Your task to perform on an android device: set an alarm Image 0: 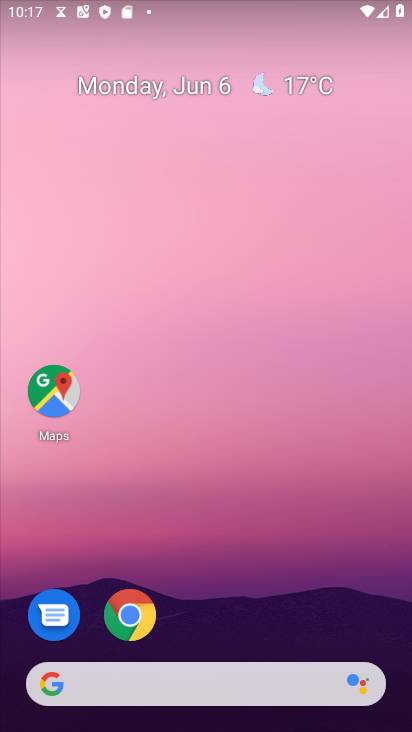
Step 0: press home button
Your task to perform on an android device: set an alarm Image 1: 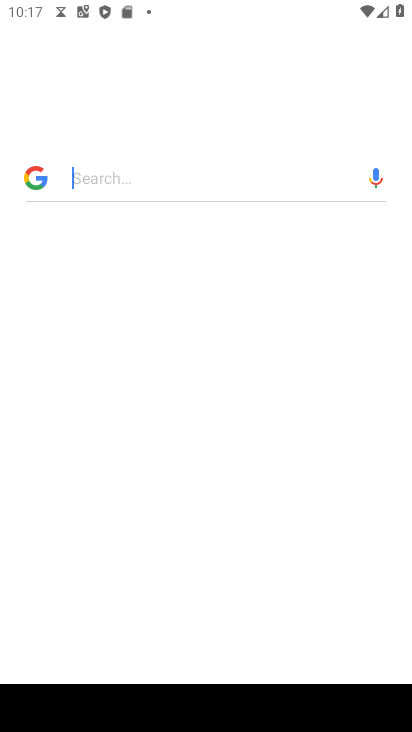
Step 1: drag from (220, 567) to (214, 82)
Your task to perform on an android device: set an alarm Image 2: 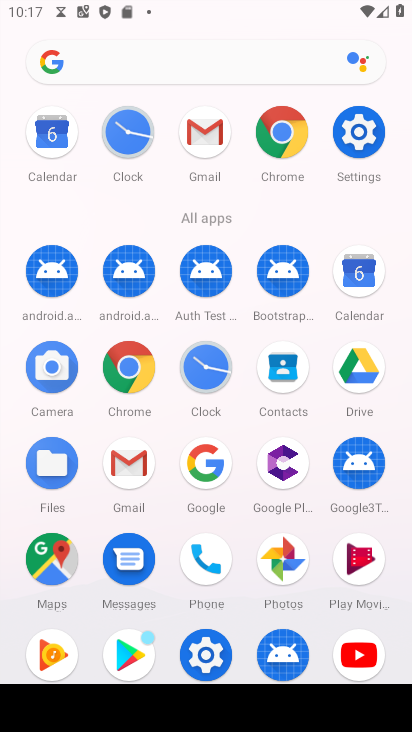
Step 2: click (197, 362)
Your task to perform on an android device: set an alarm Image 3: 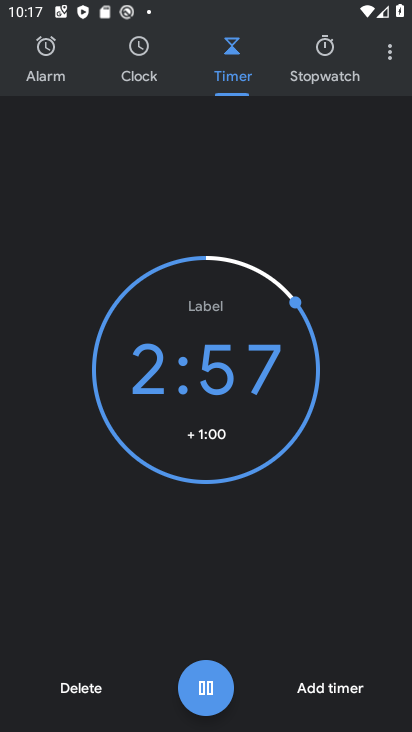
Step 3: click (84, 680)
Your task to perform on an android device: set an alarm Image 4: 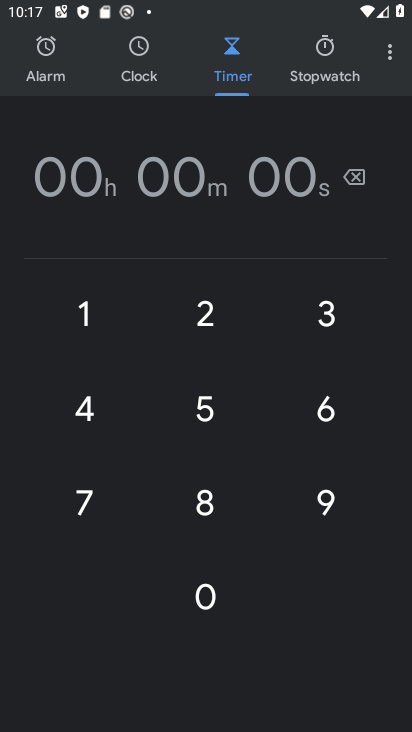
Step 4: click (47, 43)
Your task to perform on an android device: set an alarm Image 5: 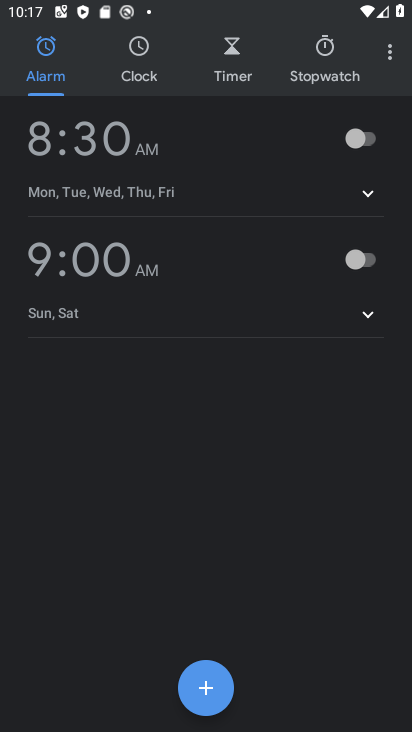
Step 5: click (359, 134)
Your task to perform on an android device: set an alarm Image 6: 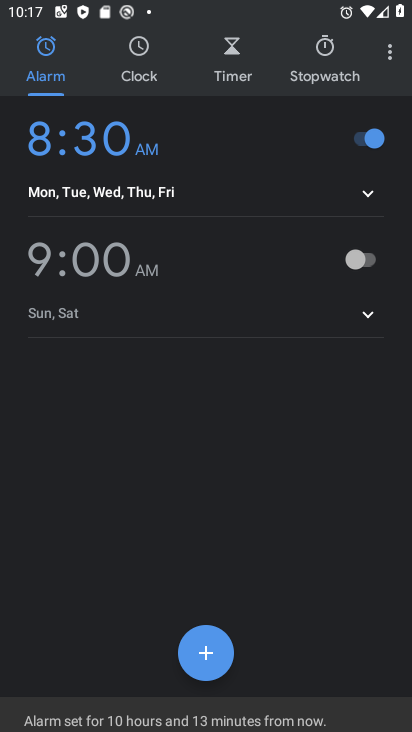
Step 6: task complete